Your task to perform on an android device: Go to Maps Image 0: 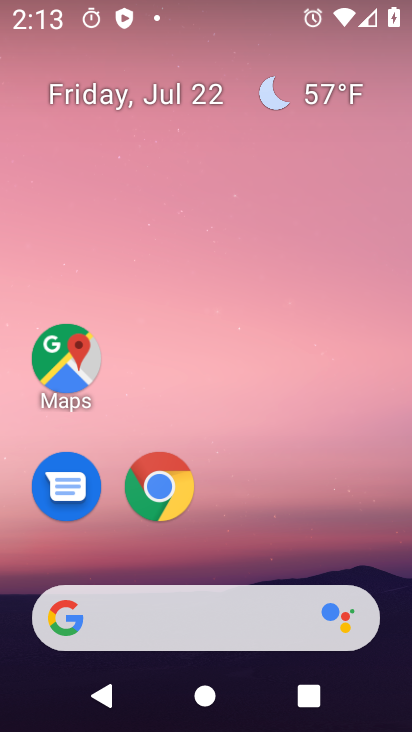
Step 0: press home button
Your task to perform on an android device: Go to Maps Image 1: 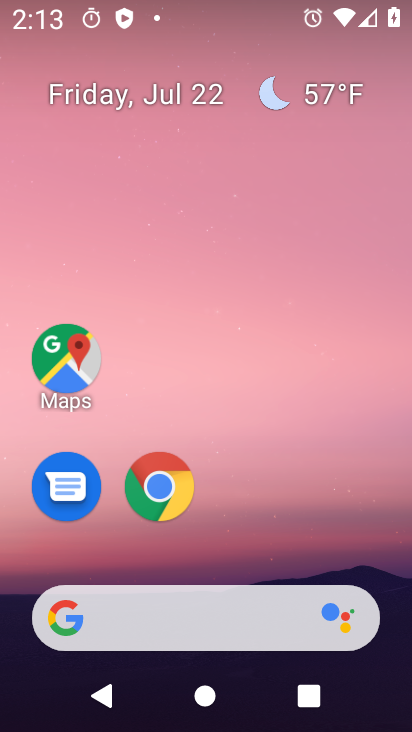
Step 1: drag from (380, 535) to (368, 195)
Your task to perform on an android device: Go to Maps Image 2: 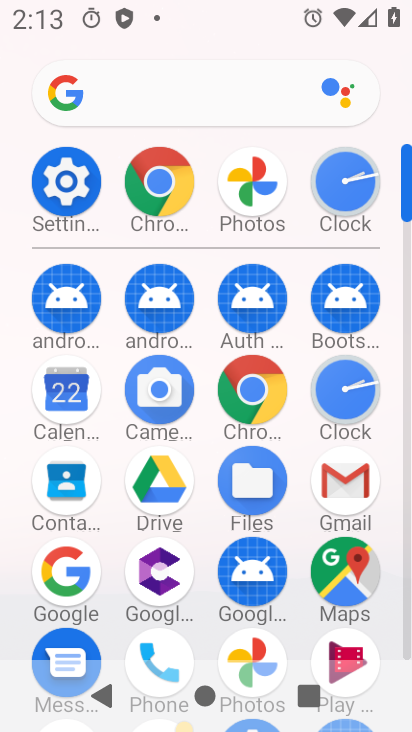
Step 2: click (347, 572)
Your task to perform on an android device: Go to Maps Image 3: 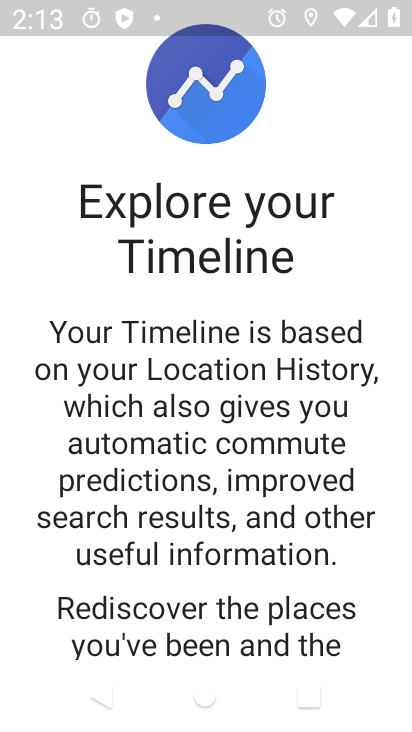
Step 3: task complete